Your task to perform on an android device: What's on my calendar tomorrow? Image 0: 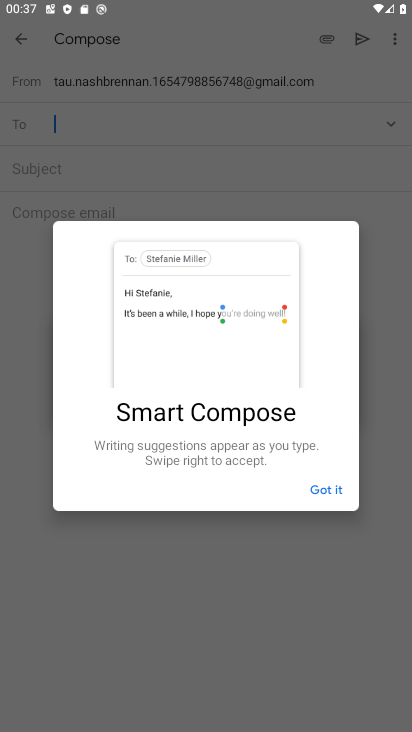
Step 0: press home button
Your task to perform on an android device: What's on my calendar tomorrow? Image 1: 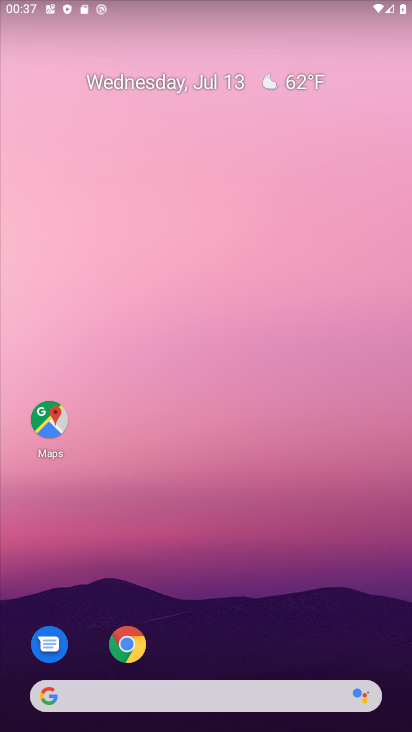
Step 1: click (176, 678)
Your task to perform on an android device: What's on my calendar tomorrow? Image 2: 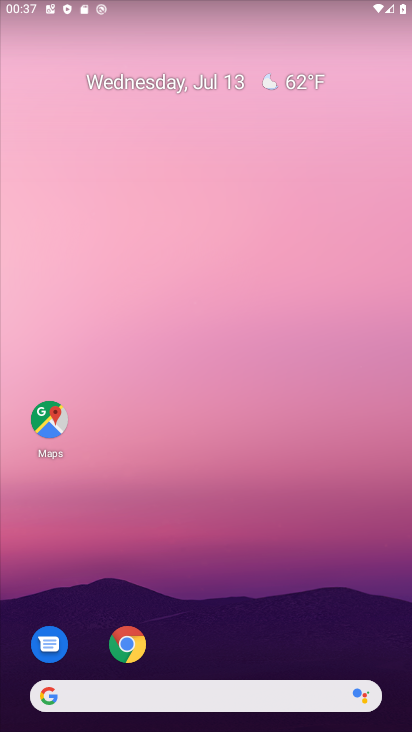
Step 2: drag from (176, 678) to (133, 213)
Your task to perform on an android device: What's on my calendar tomorrow? Image 3: 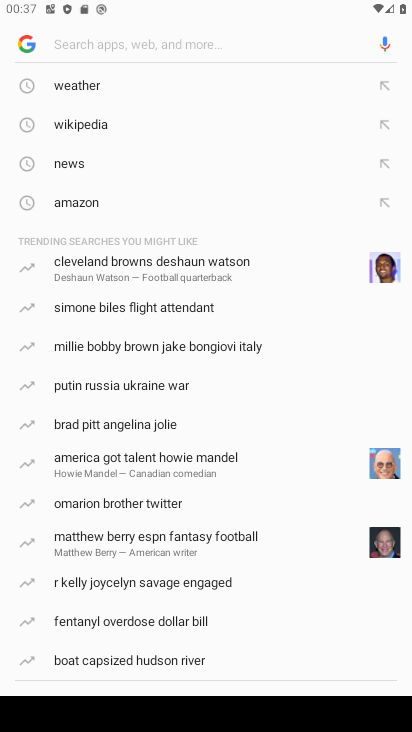
Step 3: press home button
Your task to perform on an android device: What's on my calendar tomorrow? Image 4: 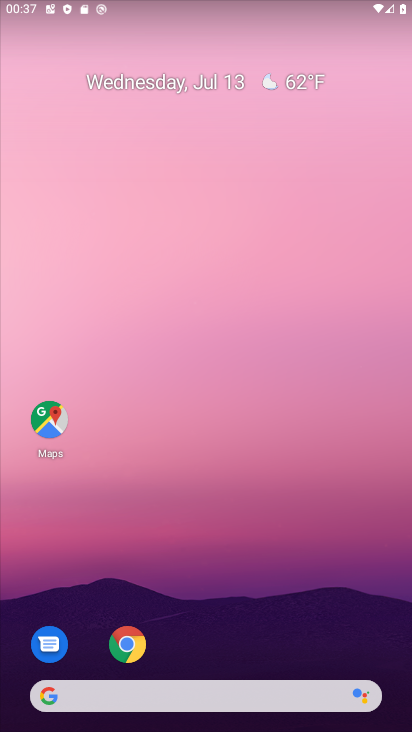
Step 4: drag from (197, 662) to (112, 156)
Your task to perform on an android device: What's on my calendar tomorrow? Image 5: 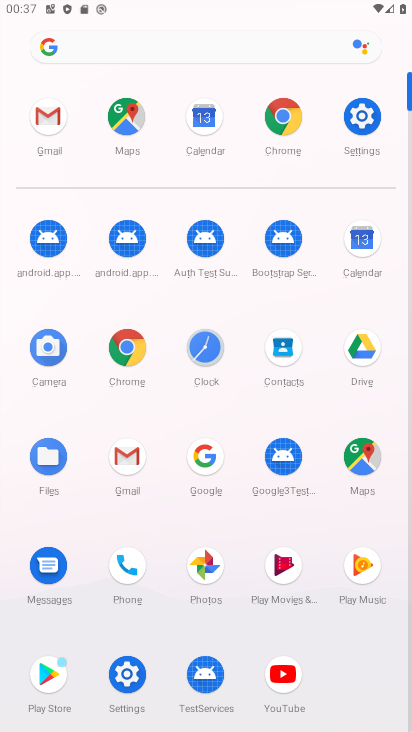
Step 5: click (347, 248)
Your task to perform on an android device: What's on my calendar tomorrow? Image 6: 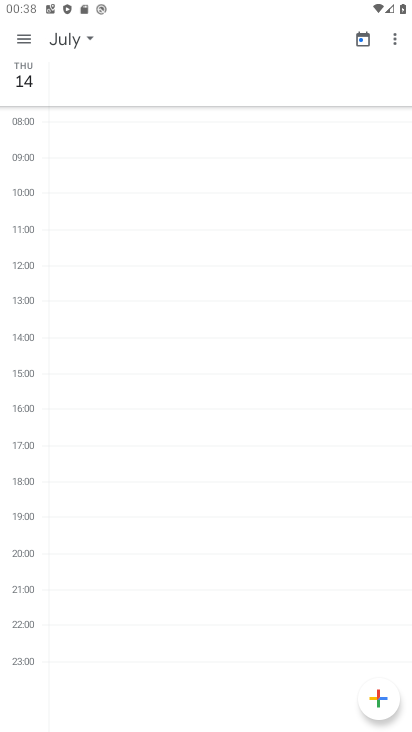
Step 6: click (30, 39)
Your task to perform on an android device: What's on my calendar tomorrow? Image 7: 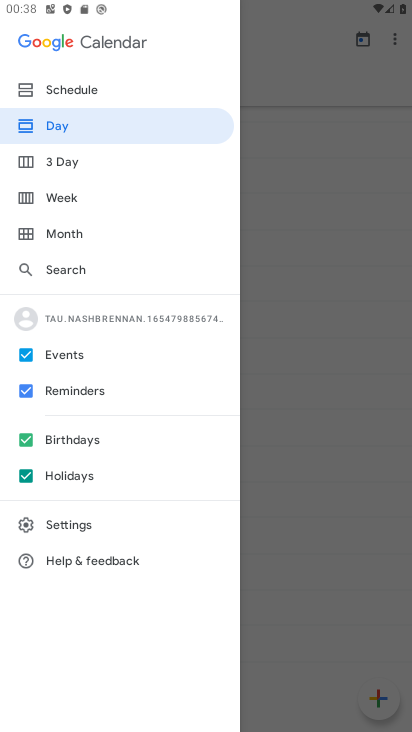
Step 7: click (54, 190)
Your task to perform on an android device: What's on my calendar tomorrow? Image 8: 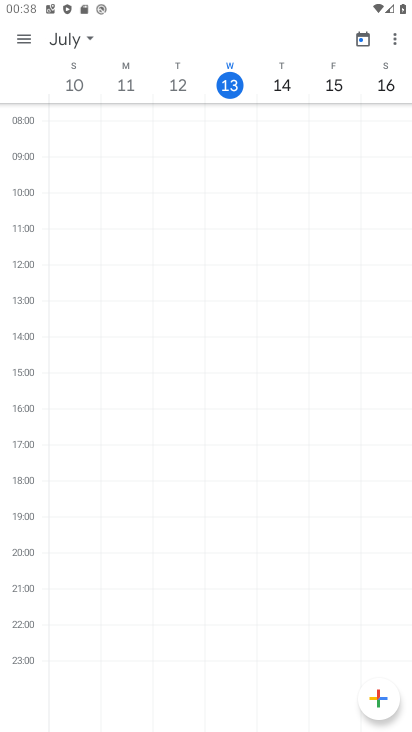
Step 8: click (279, 79)
Your task to perform on an android device: What's on my calendar tomorrow? Image 9: 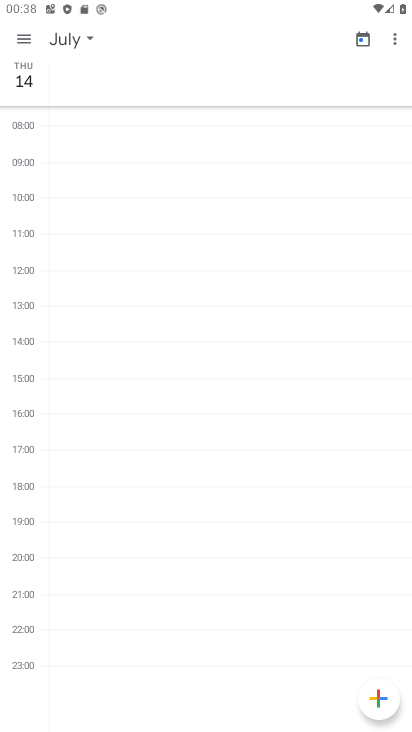
Step 9: task complete